Your task to perform on an android device: open a bookmark in the chrome app Image 0: 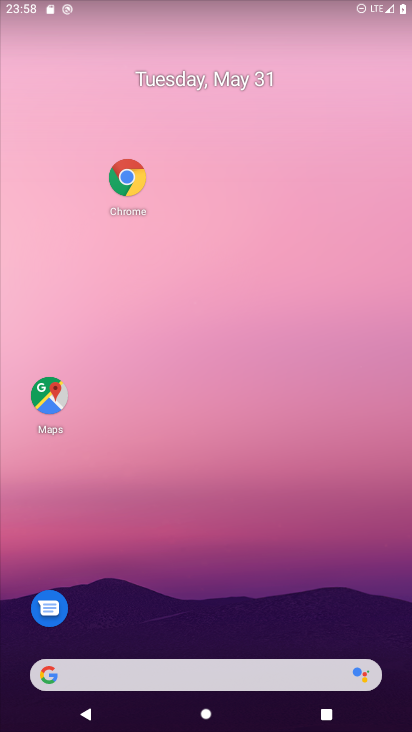
Step 0: click (129, 193)
Your task to perform on an android device: open a bookmark in the chrome app Image 1: 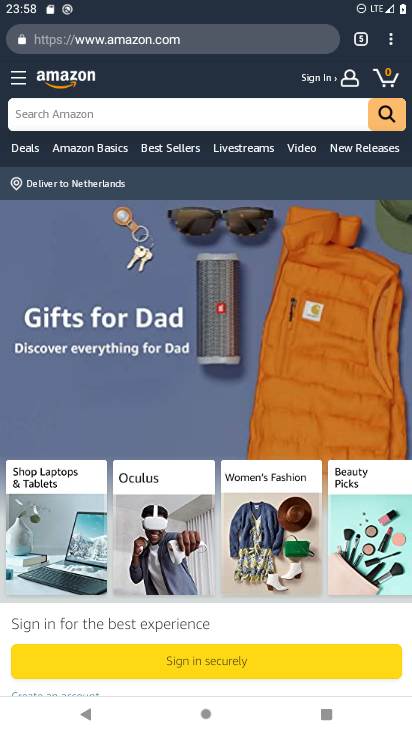
Step 1: task complete